Your task to perform on an android device: Search for pizza restaurants on Maps Image 0: 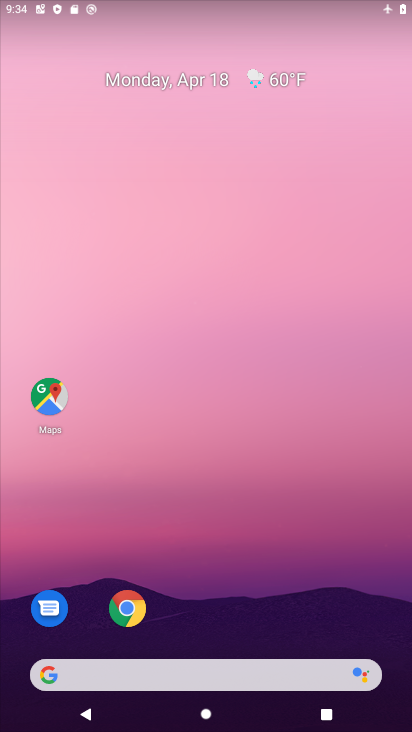
Step 0: drag from (215, 578) to (230, 36)
Your task to perform on an android device: Search for pizza restaurants on Maps Image 1: 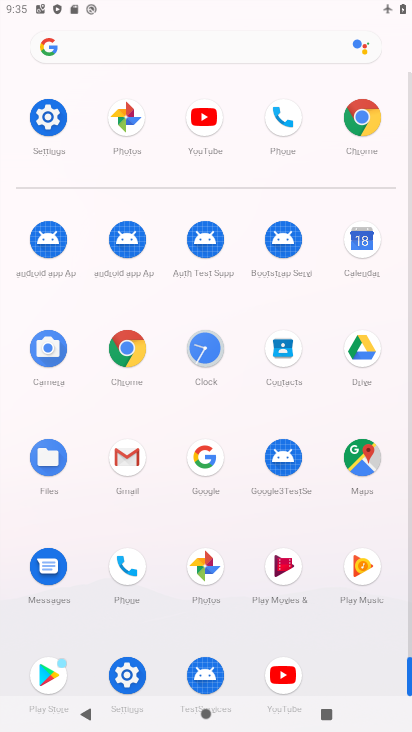
Step 1: click (370, 468)
Your task to perform on an android device: Search for pizza restaurants on Maps Image 2: 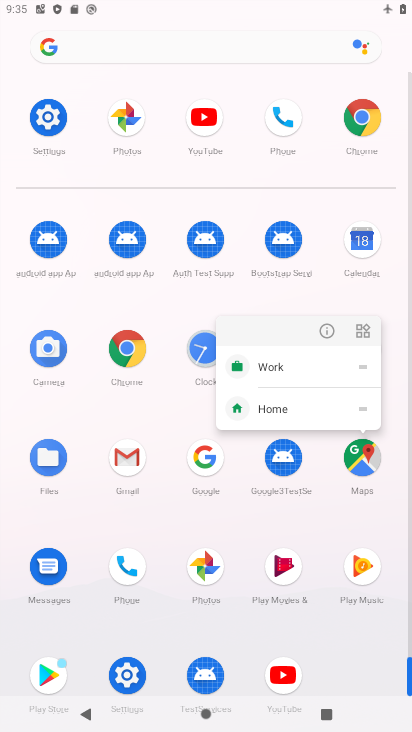
Step 2: click (326, 328)
Your task to perform on an android device: Search for pizza restaurants on Maps Image 3: 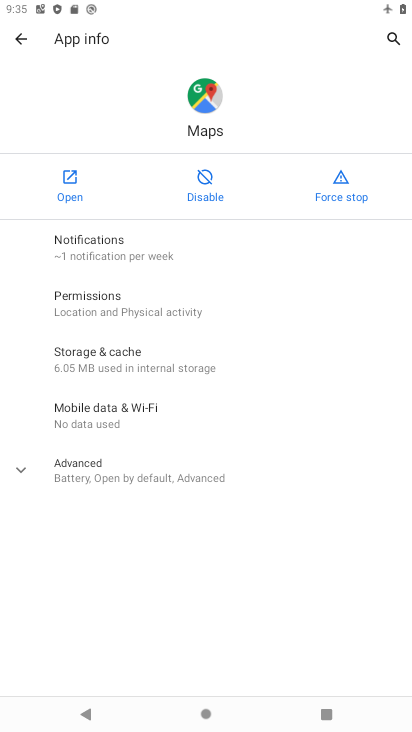
Step 3: click (81, 180)
Your task to perform on an android device: Search for pizza restaurants on Maps Image 4: 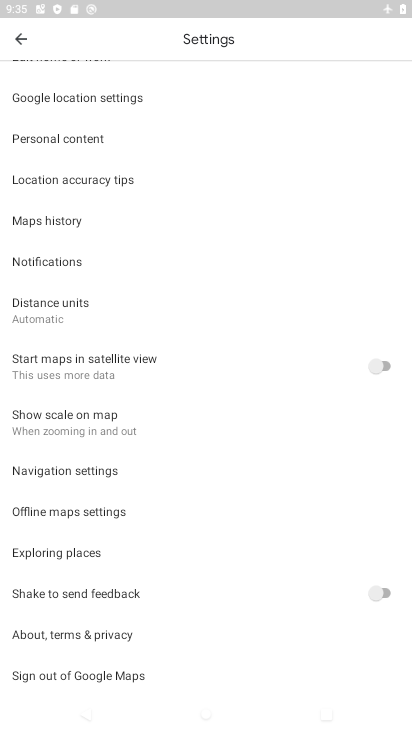
Step 4: drag from (202, 638) to (237, 262)
Your task to perform on an android device: Search for pizza restaurants on Maps Image 5: 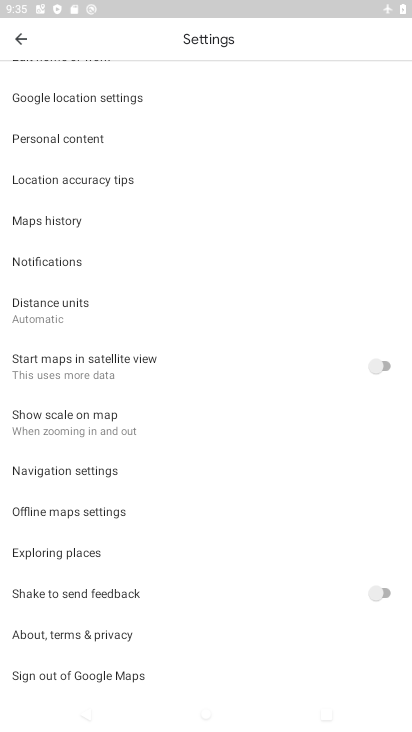
Step 5: drag from (245, 137) to (397, 662)
Your task to perform on an android device: Search for pizza restaurants on Maps Image 6: 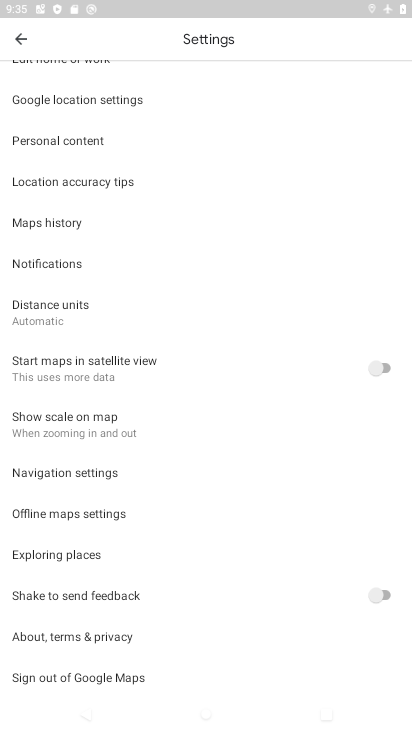
Step 6: drag from (143, 200) to (227, 718)
Your task to perform on an android device: Search for pizza restaurants on Maps Image 7: 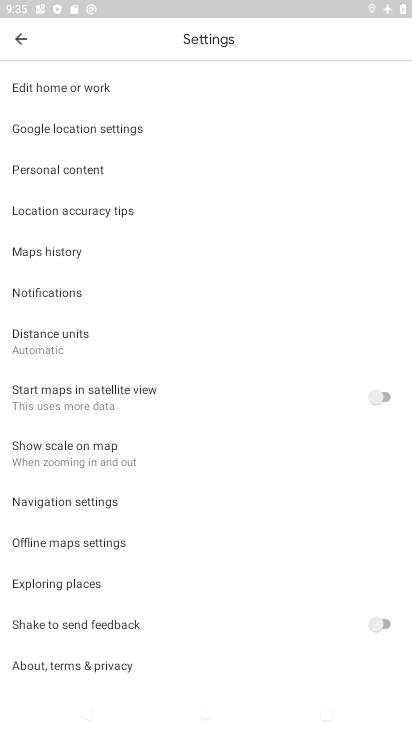
Step 7: click (16, 40)
Your task to perform on an android device: Search for pizza restaurants on Maps Image 8: 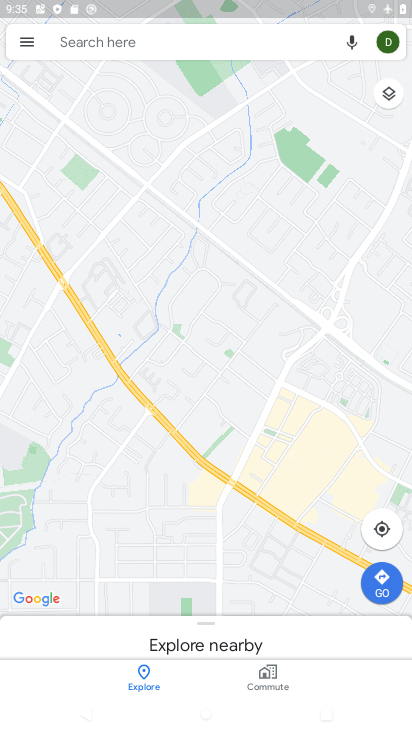
Step 8: click (15, 40)
Your task to perform on an android device: Search for pizza restaurants on Maps Image 9: 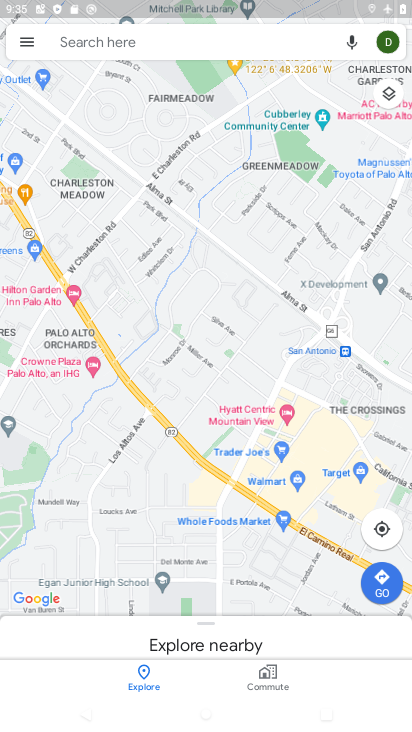
Step 9: drag from (188, 488) to (217, 286)
Your task to perform on an android device: Search for pizza restaurants on Maps Image 10: 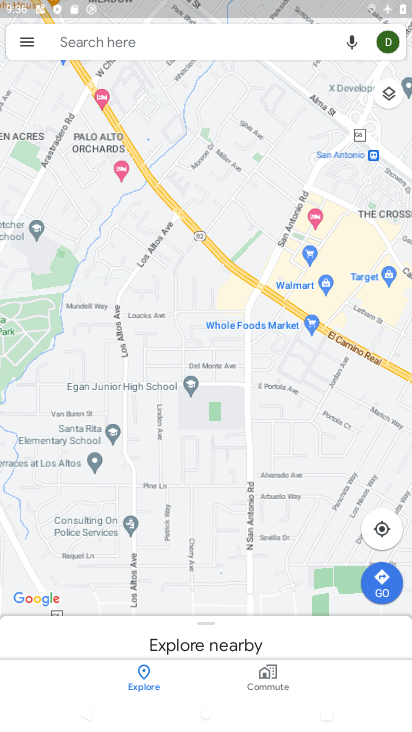
Step 10: drag from (342, 508) to (227, 217)
Your task to perform on an android device: Search for pizza restaurants on Maps Image 11: 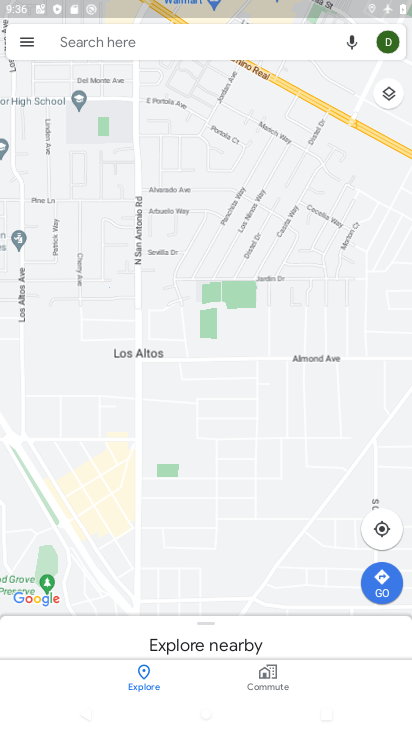
Step 11: click (148, 41)
Your task to perform on an android device: Search for pizza restaurants on Maps Image 12: 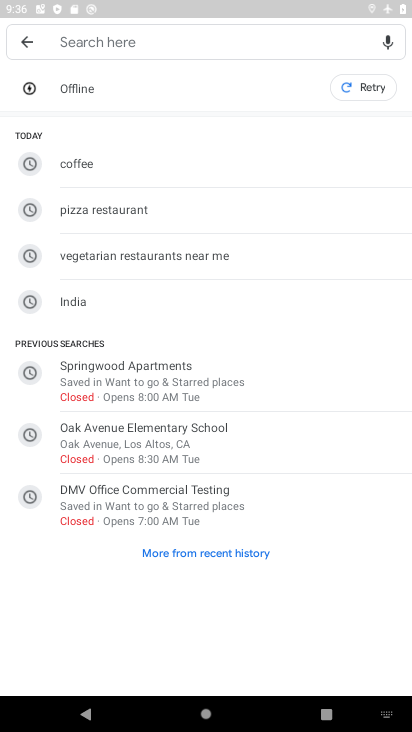
Step 12: click (167, 211)
Your task to perform on an android device: Search for pizza restaurants on Maps Image 13: 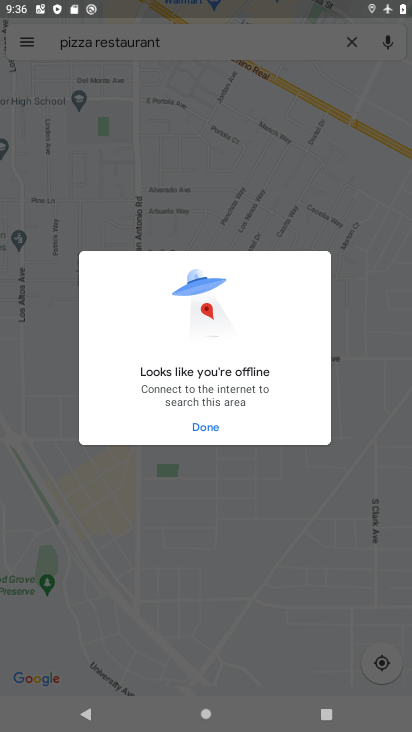
Step 13: click (194, 435)
Your task to perform on an android device: Search for pizza restaurants on Maps Image 14: 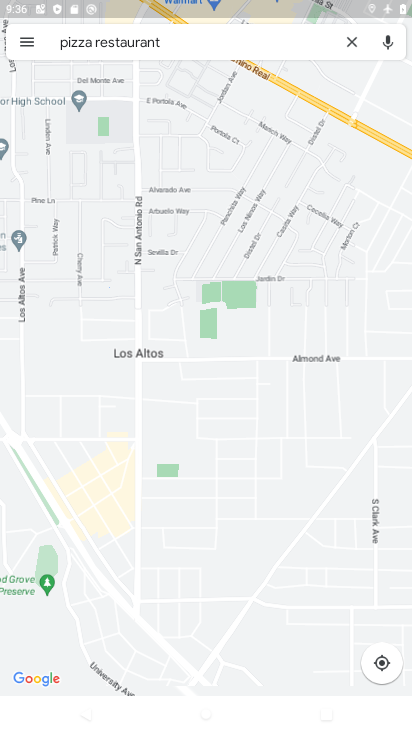
Step 14: task complete